Your task to perform on an android device: install app "Yahoo Mail" Image 0: 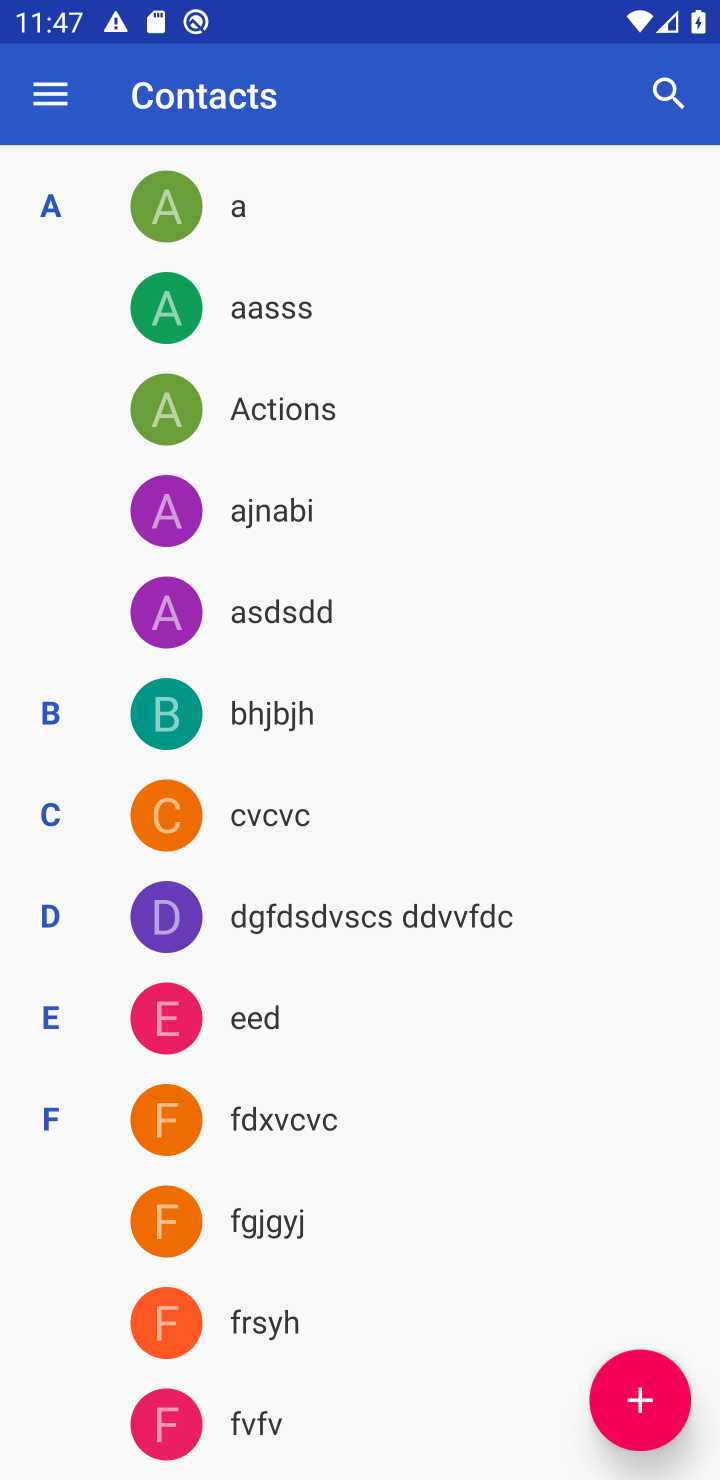
Step 0: press home button
Your task to perform on an android device: install app "Yahoo Mail" Image 1: 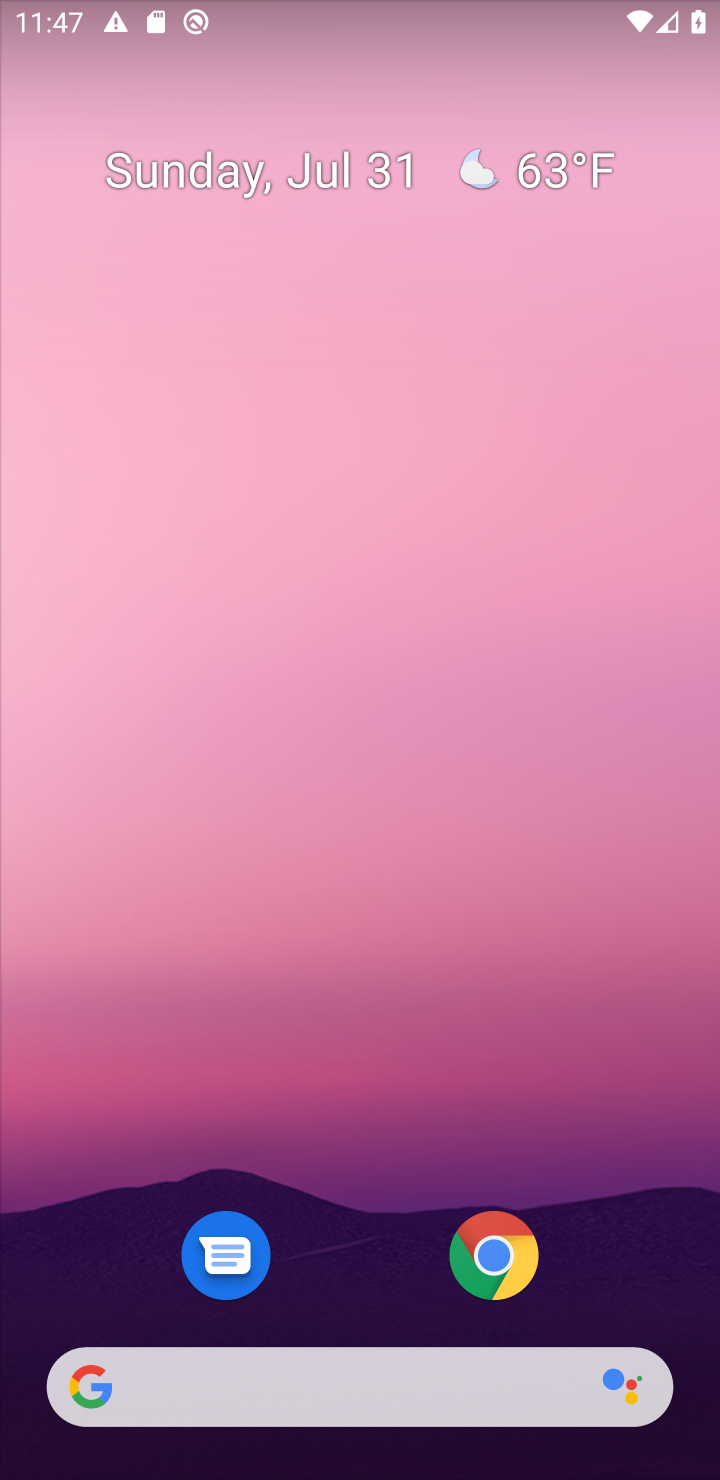
Step 1: drag from (533, 1125) to (373, 512)
Your task to perform on an android device: install app "Yahoo Mail" Image 2: 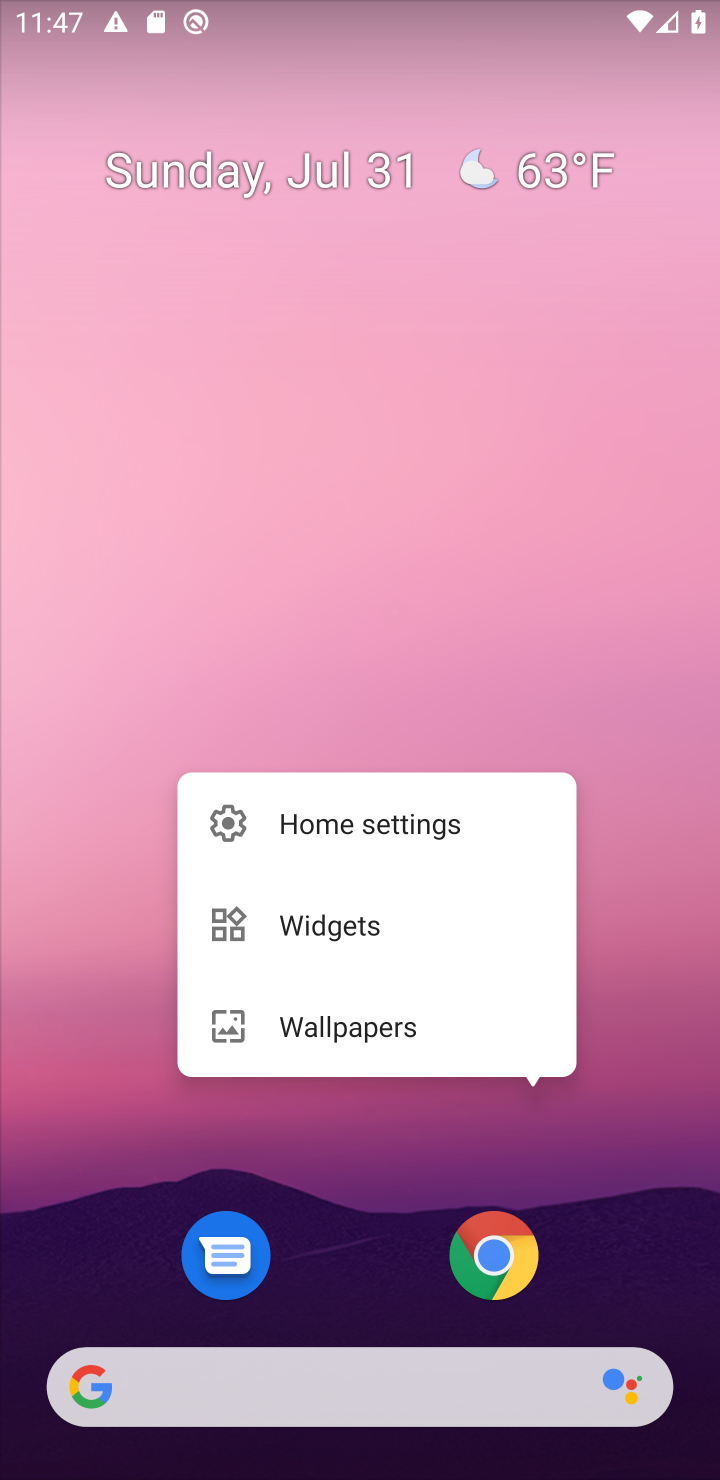
Step 2: click (563, 675)
Your task to perform on an android device: install app "Yahoo Mail" Image 3: 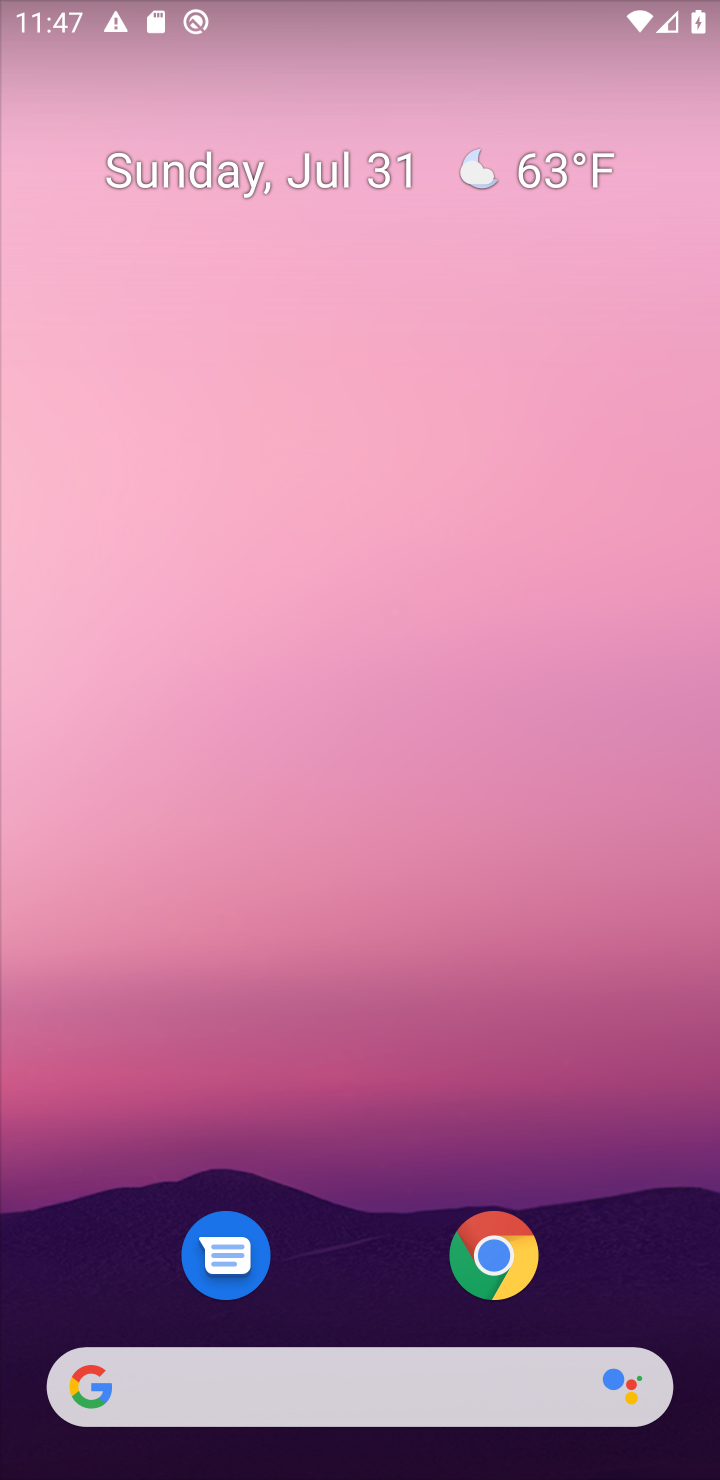
Step 3: drag from (621, 1182) to (232, 13)
Your task to perform on an android device: install app "Yahoo Mail" Image 4: 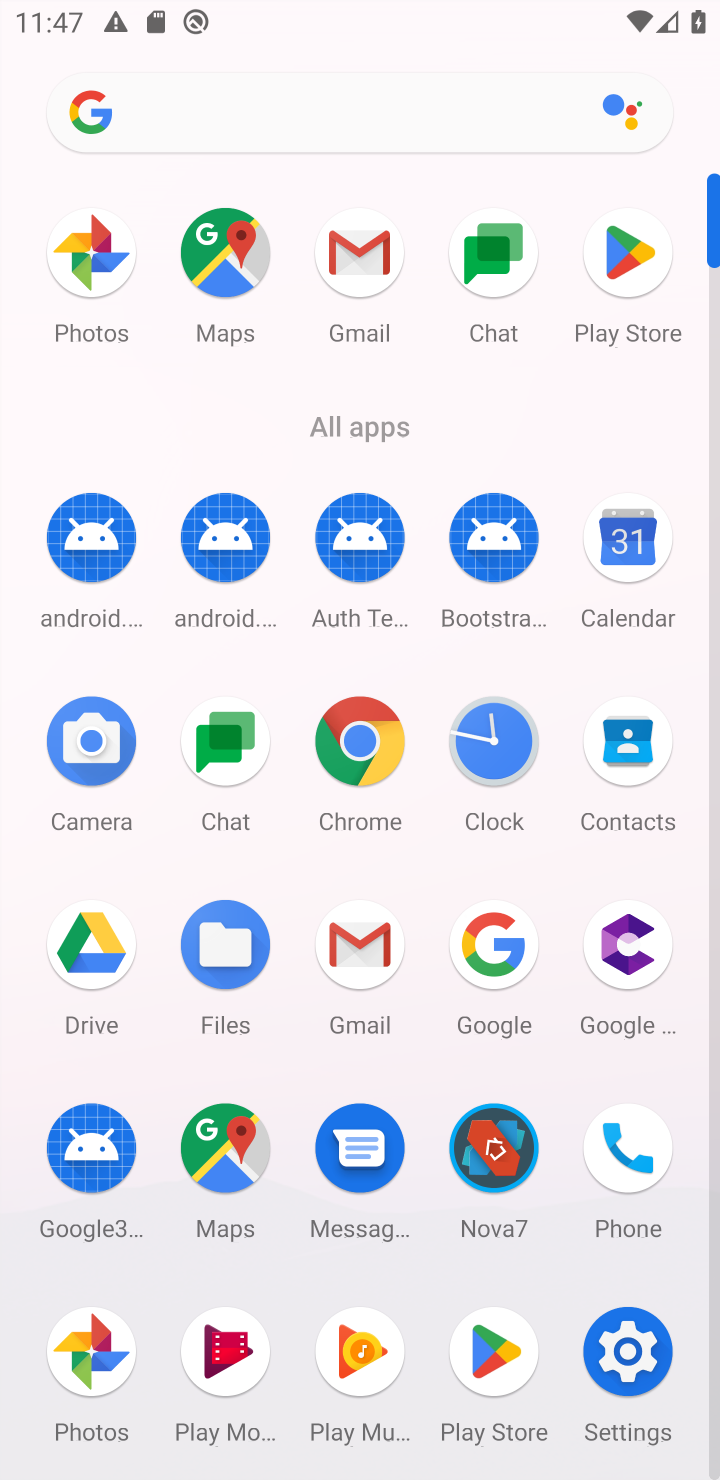
Step 4: click (483, 1342)
Your task to perform on an android device: install app "Yahoo Mail" Image 5: 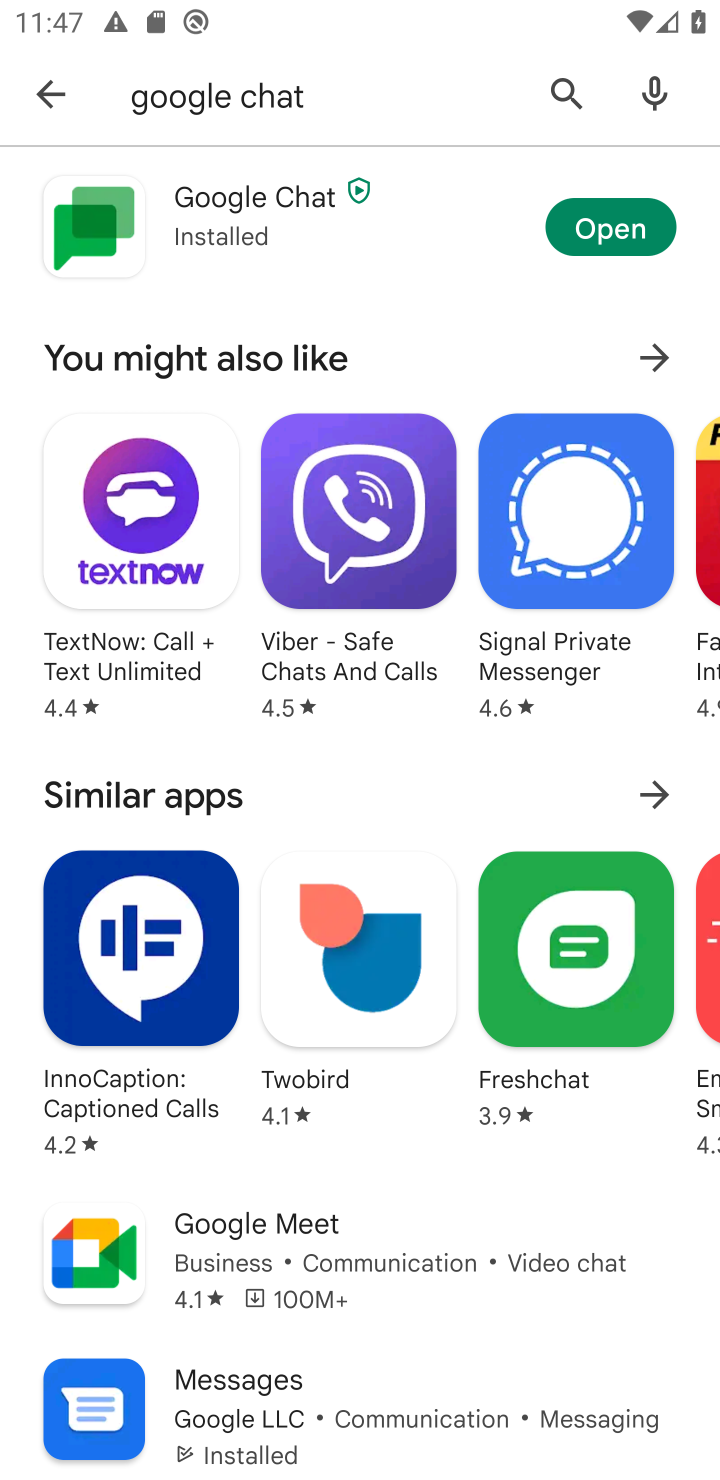
Step 5: click (553, 82)
Your task to perform on an android device: install app "Yahoo Mail" Image 6: 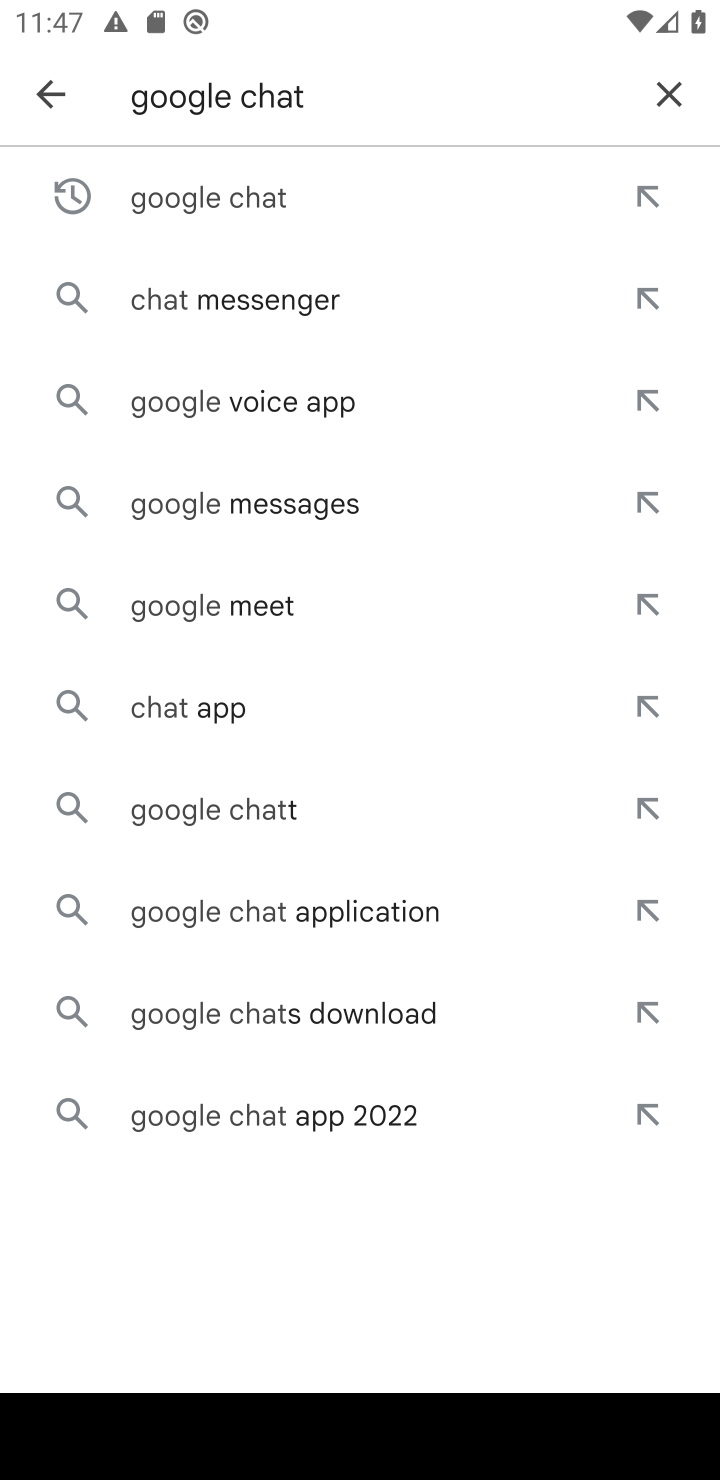
Step 6: click (662, 95)
Your task to perform on an android device: install app "Yahoo Mail" Image 7: 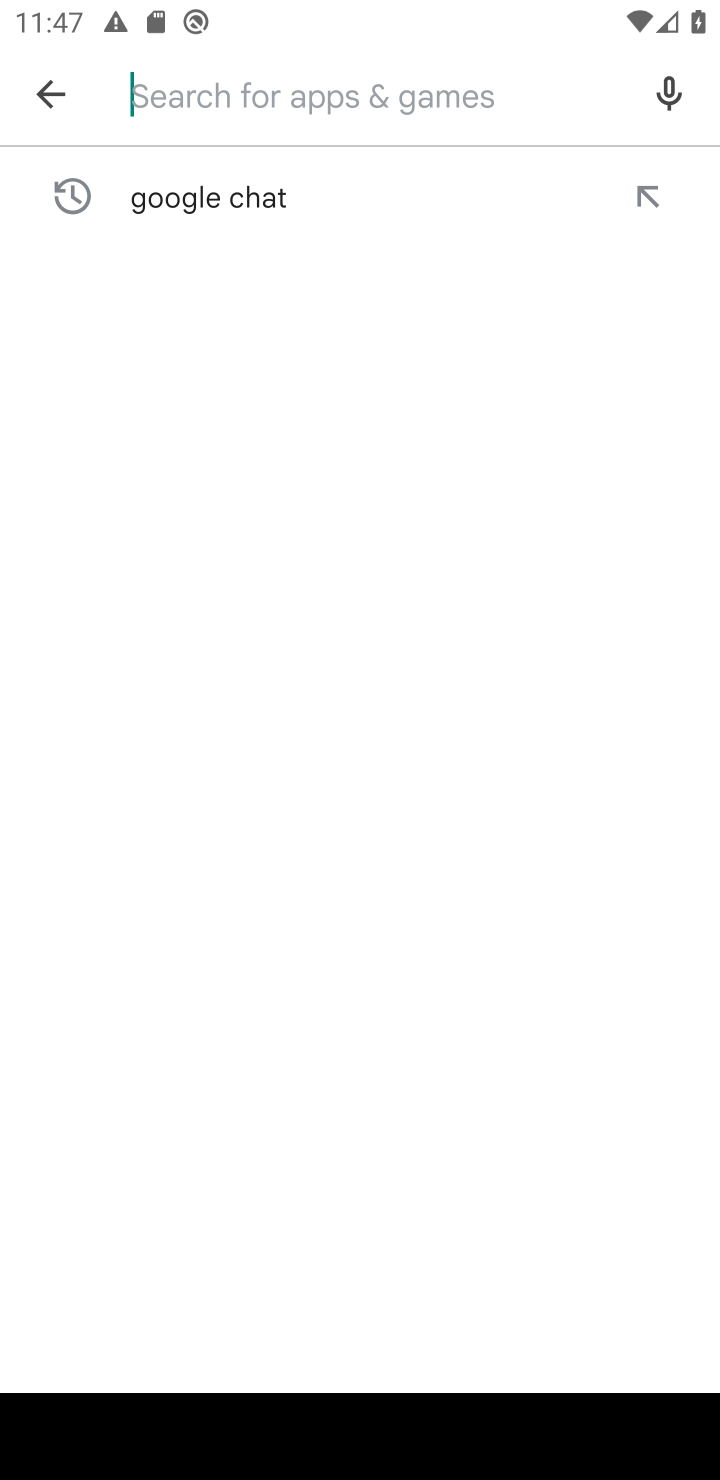
Step 7: type "yahoo mail"
Your task to perform on an android device: install app "Yahoo Mail" Image 8: 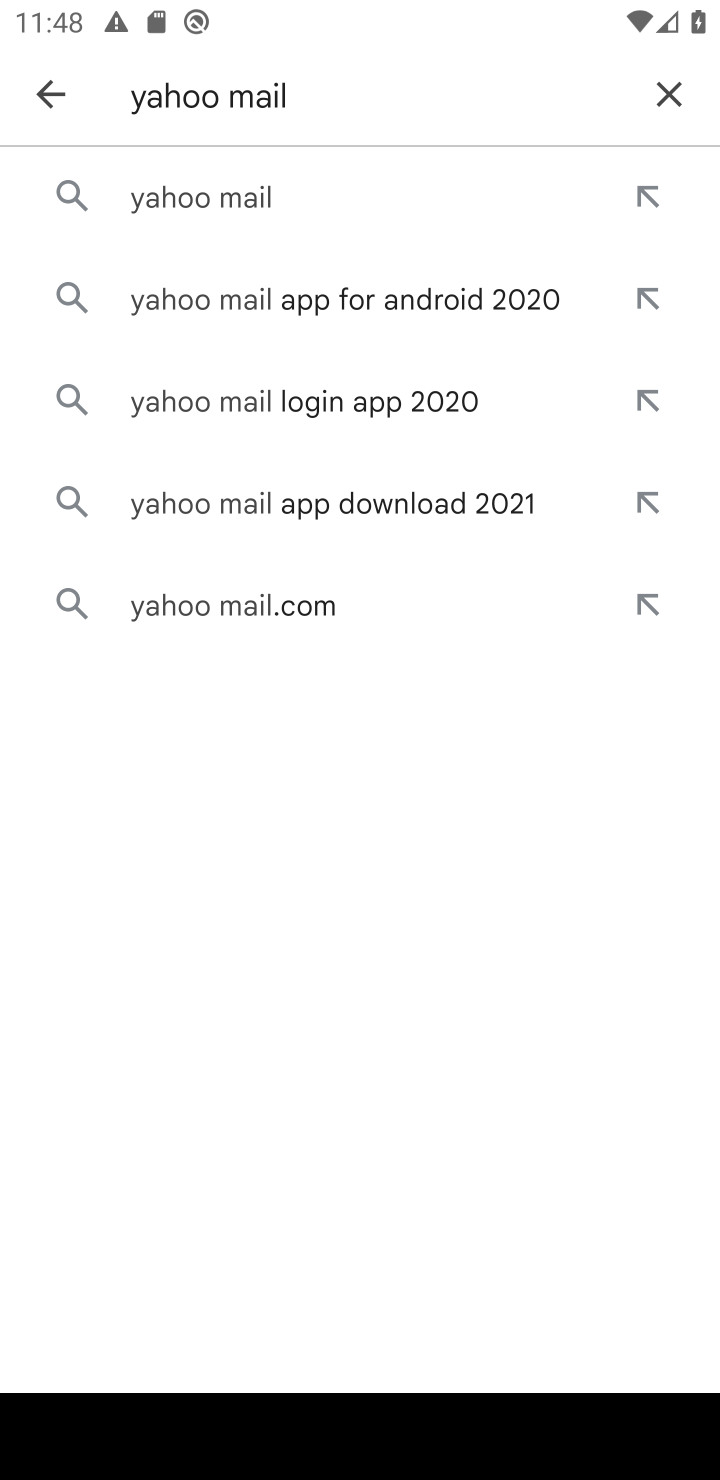
Step 8: click (305, 199)
Your task to perform on an android device: install app "Yahoo Mail" Image 9: 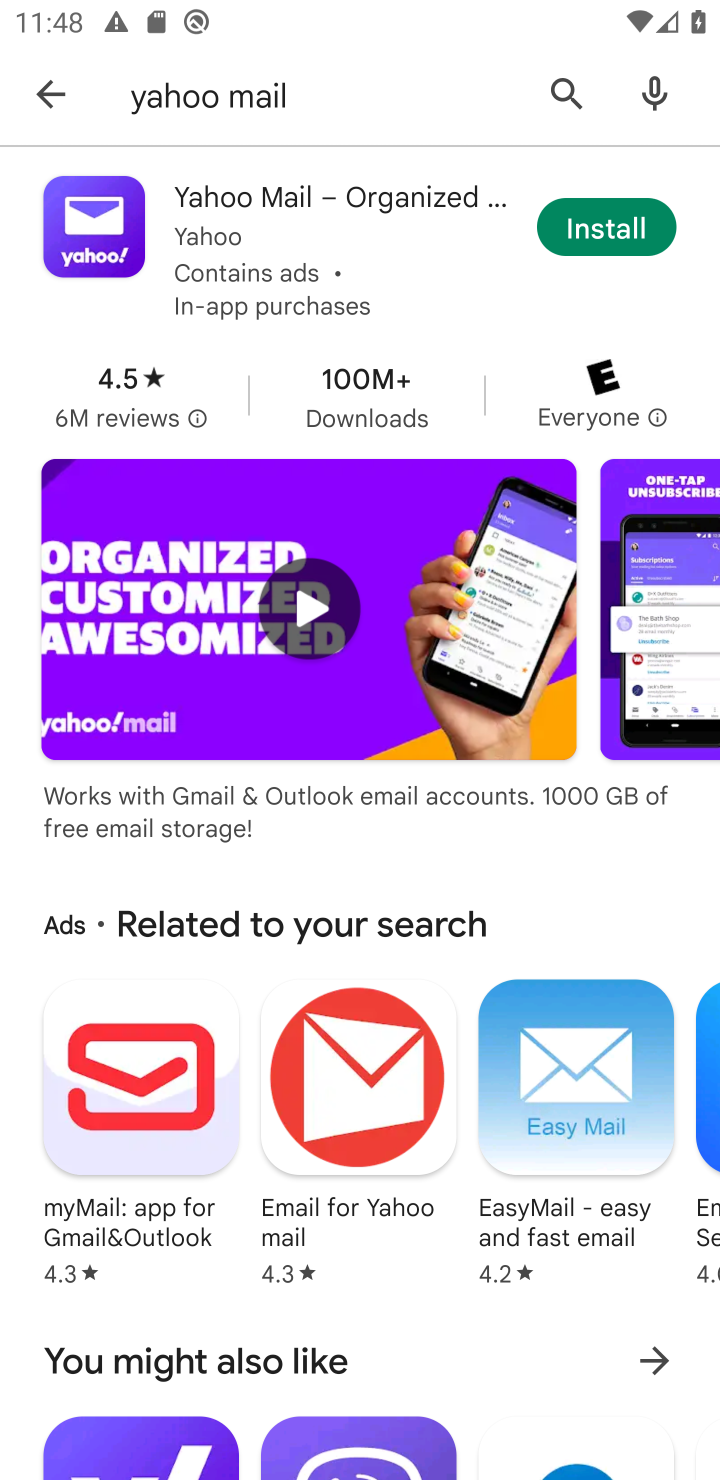
Step 9: click (595, 229)
Your task to perform on an android device: install app "Yahoo Mail" Image 10: 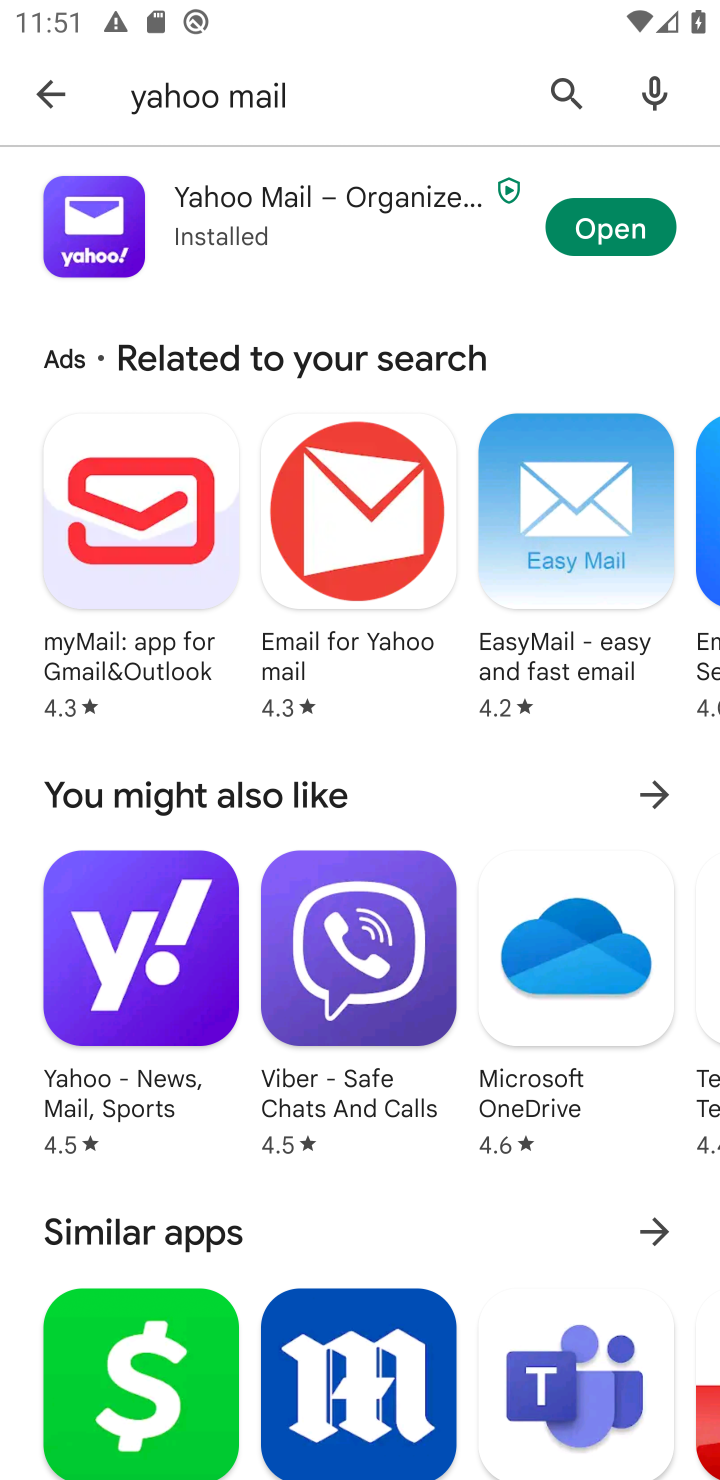
Step 10: task complete